Your task to perform on an android device: turn pop-ups off in chrome Image 0: 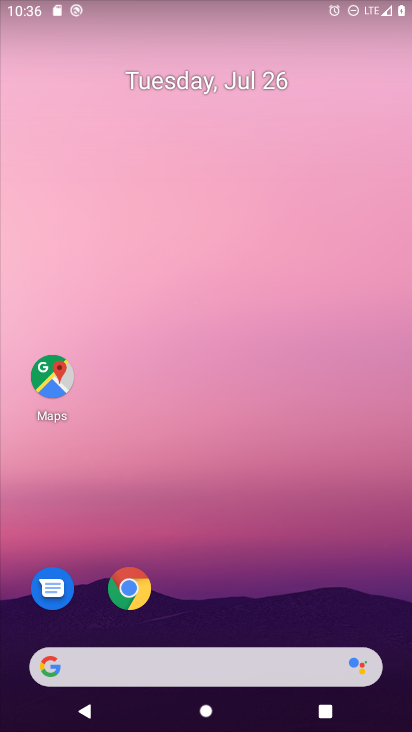
Step 0: drag from (225, 615) to (291, 168)
Your task to perform on an android device: turn pop-ups off in chrome Image 1: 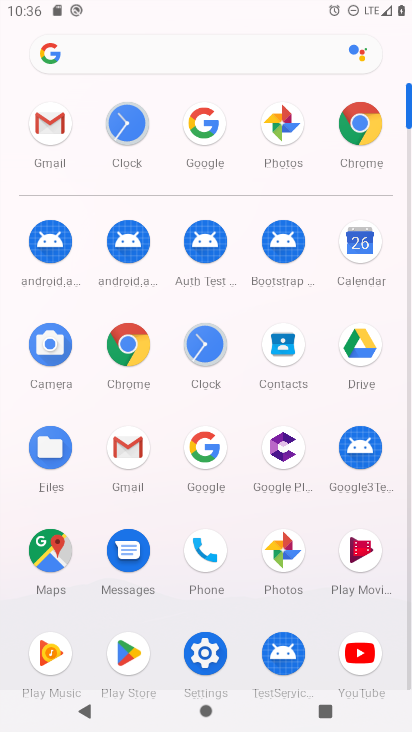
Step 1: click (349, 140)
Your task to perform on an android device: turn pop-ups off in chrome Image 2: 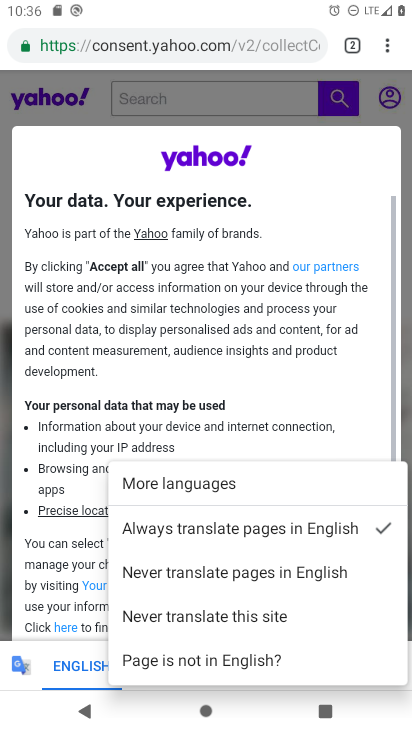
Step 2: click (390, 46)
Your task to perform on an android device: turn pop-ups off in chrome Image 3: 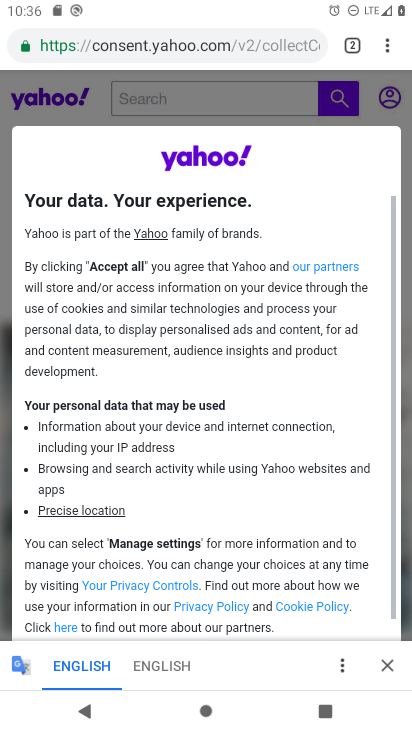
Step 3: click (391, 51)
Your task to perform on an android device: turn pop-ups off in chrome Image 4: 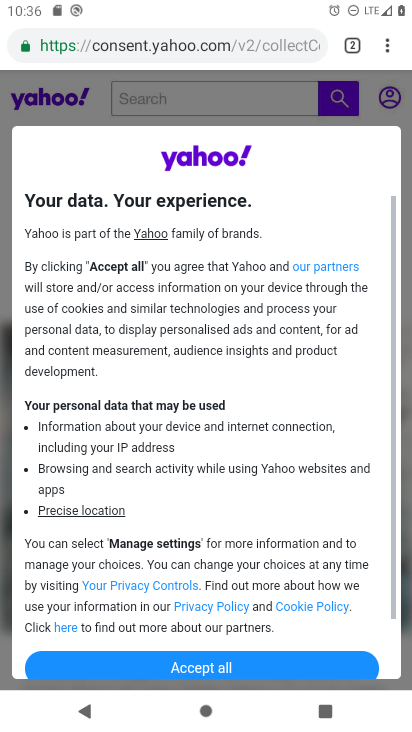
Step 4: click (390, 52)
Your task to perform on an android device: turn pop-ups off in chrome Image 5: 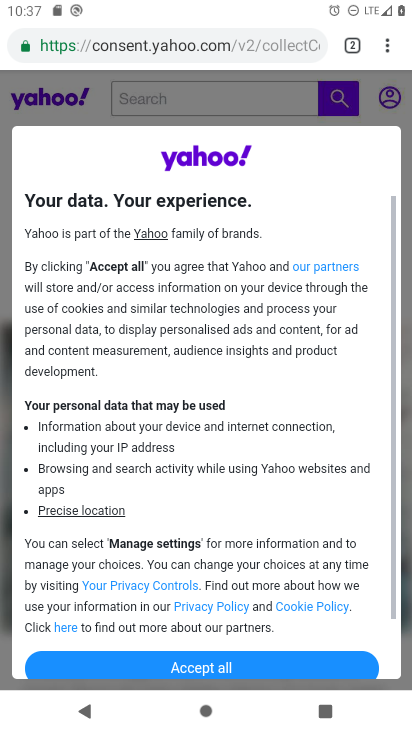
Step 5: click (391, 40)
Your task to perform on an android device: turn pop-ups off in chrome Image 6: 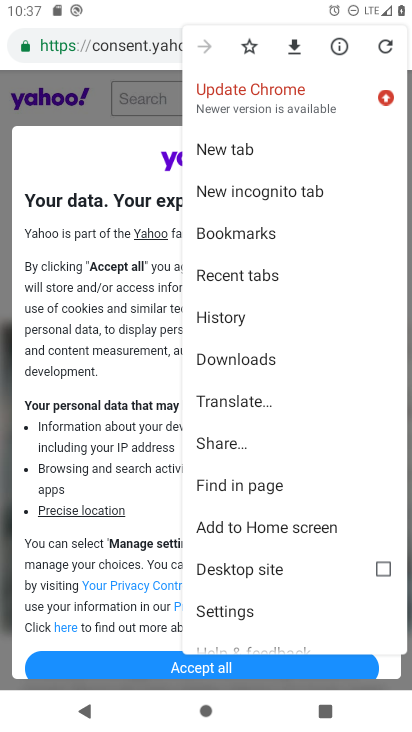
Step 6: click (232, 607)
Your task to perform on an android device: turn pop-ups off in chrome Image 7: 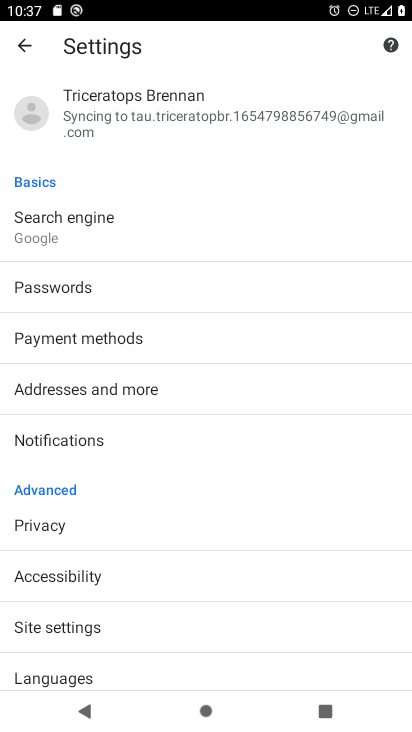
Step 7: click (97, 628)
Your task to perform on an android device: turn pop-ups off in chrome Image 8: 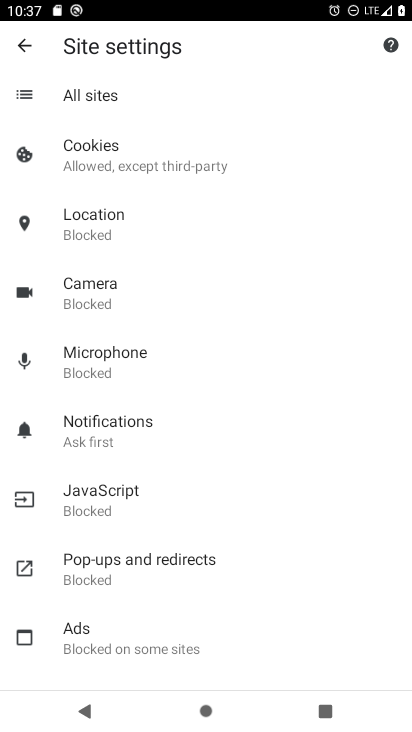
Step 8: click (135, 576)
Your task to perform on an android device: turn pop-ups off in chrome Image 9: 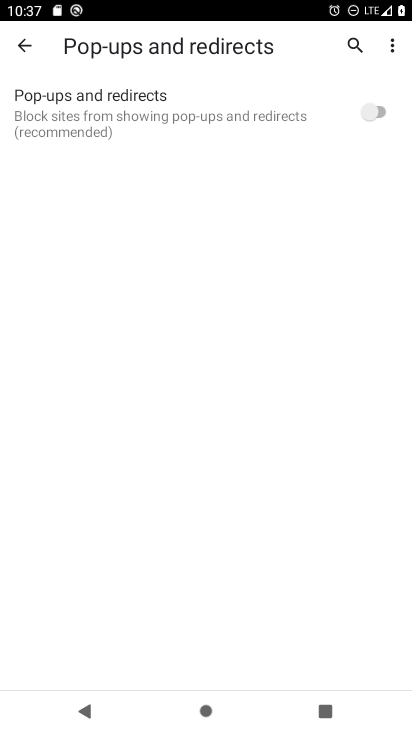
Step 9: task complete